Your task to perform on an android device: uninstall "Grab" Image 0: 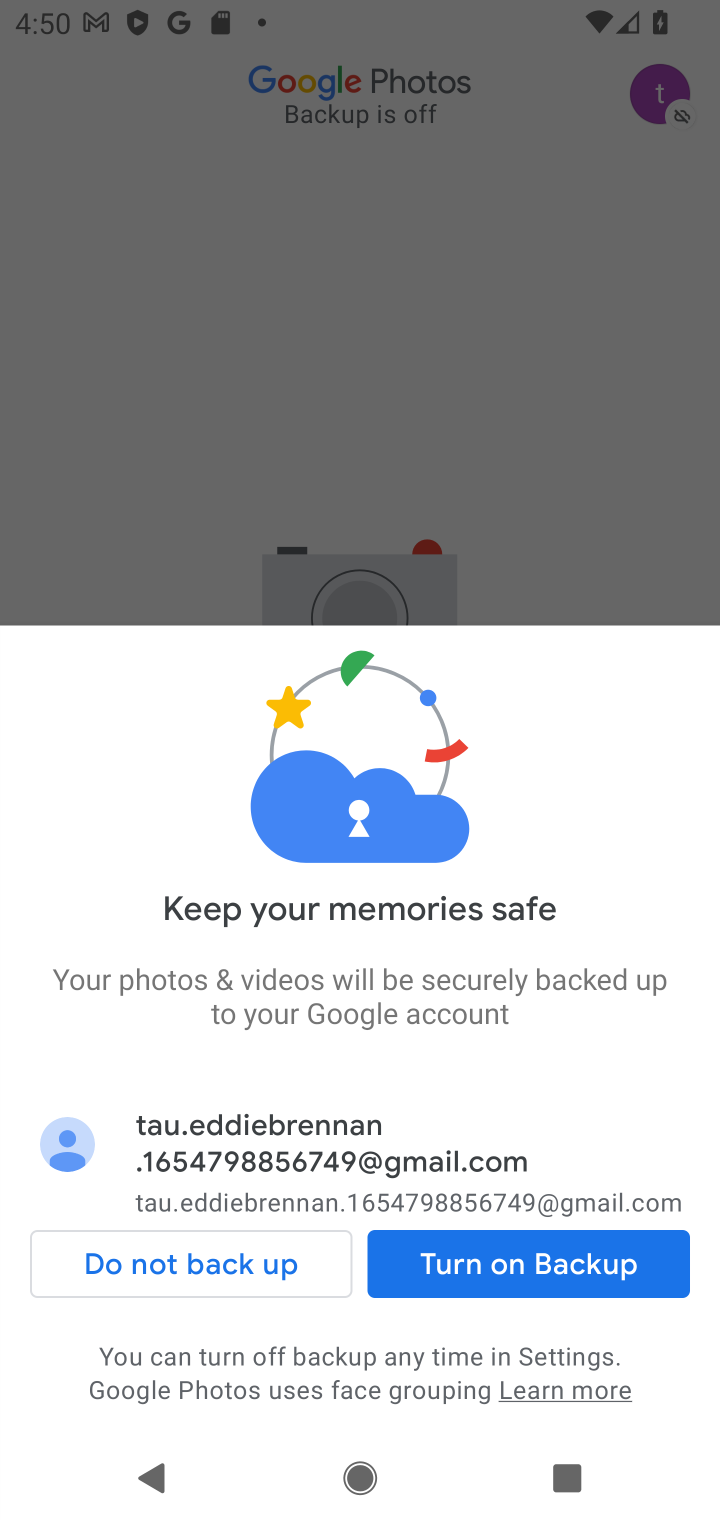
Step 0: press home button
Your task to perform on an android device: uninstall "Grab" Image 1: 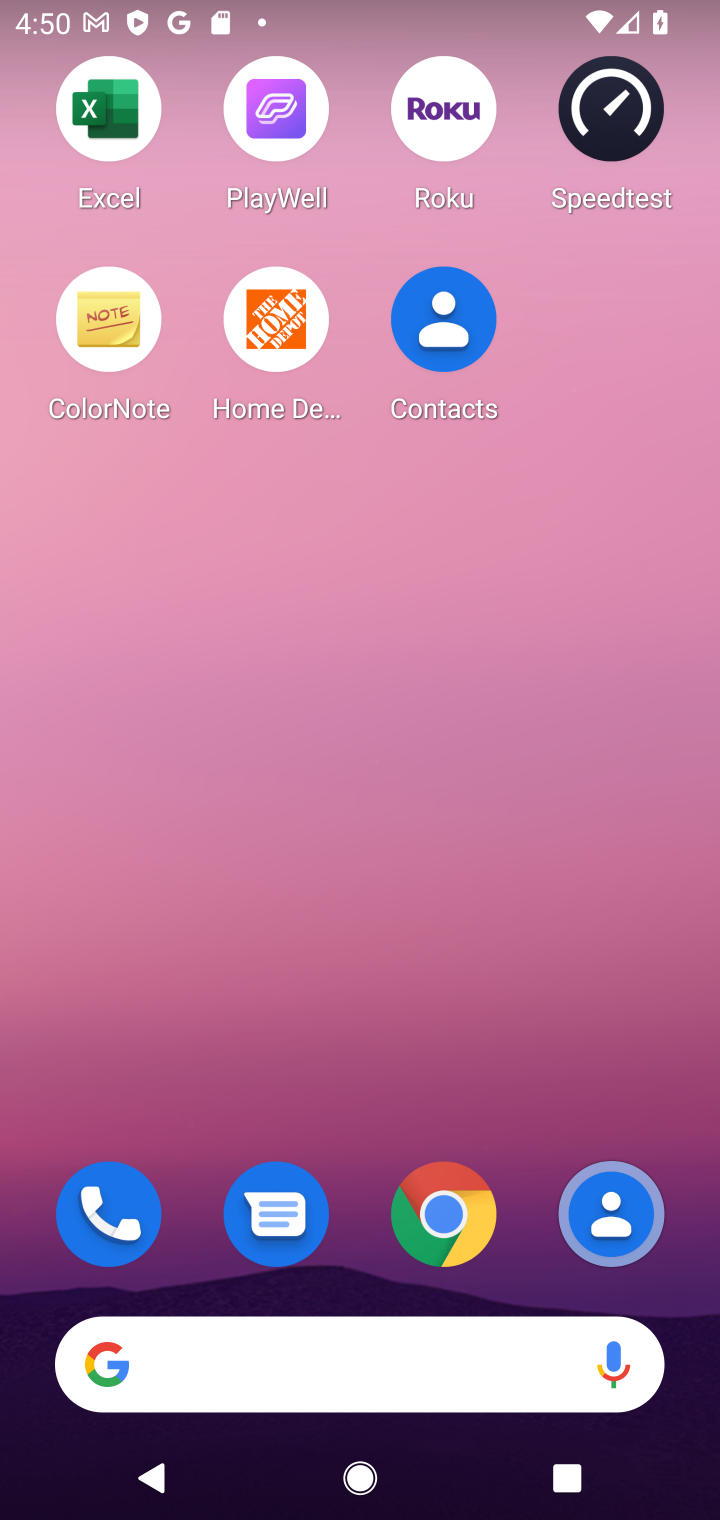
Step 1: click (420, 88)
Your task to perform on an android device: uninstall "Grab" Image 2: 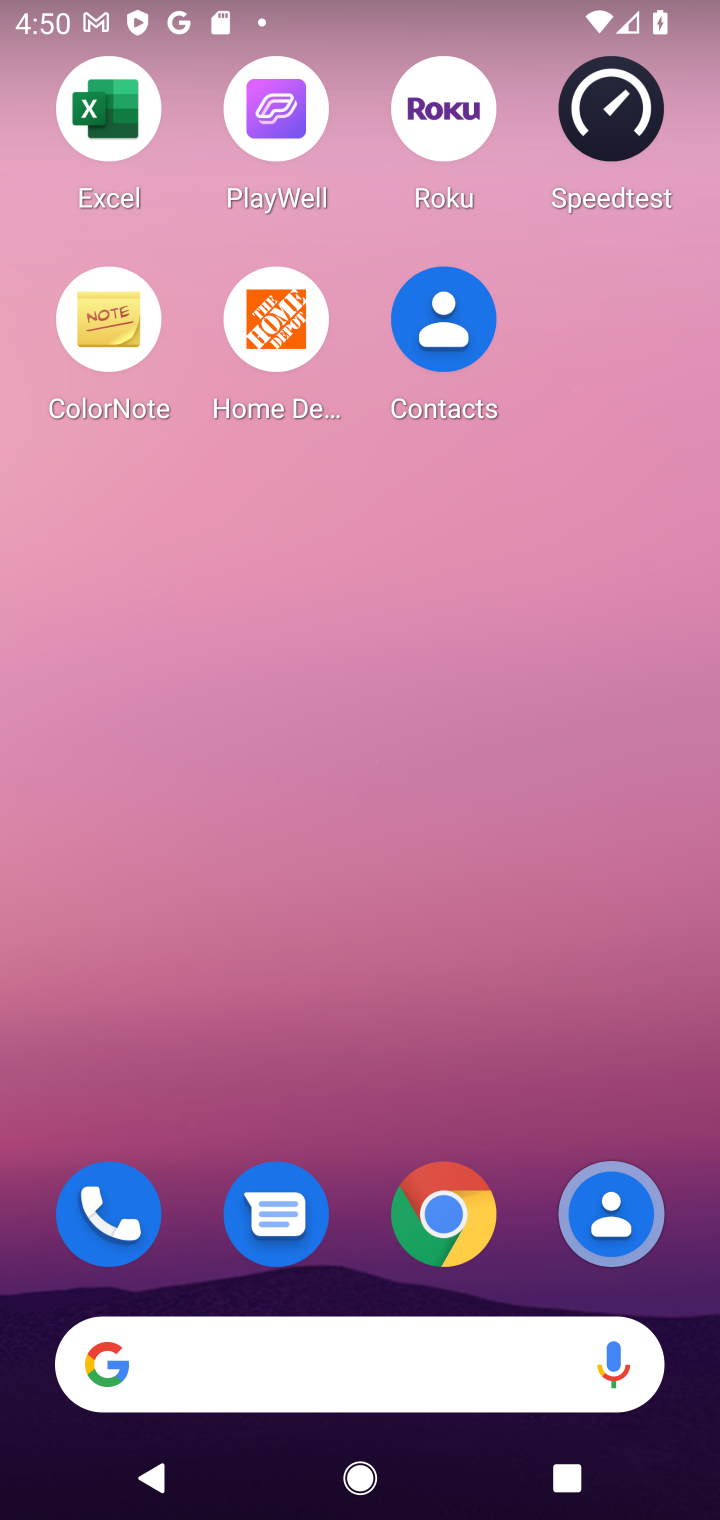
Step 2: drag from (537, 1211) to (503, 326)
Your task to perform on an android device: uninstall "Grab" Image 3: 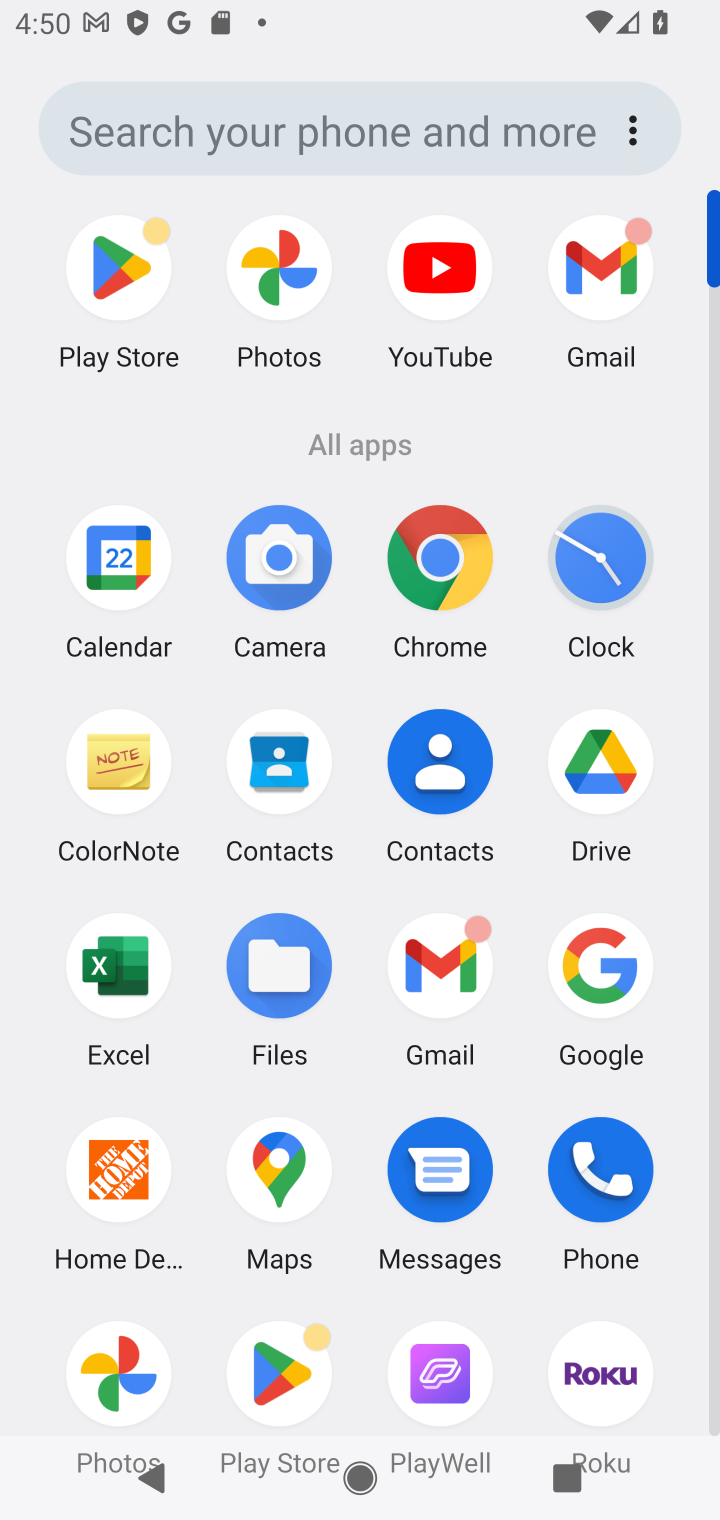
Step 3: click (280, 1378)
Your task to perform on an android device: uninstall "Grab" Image 4: 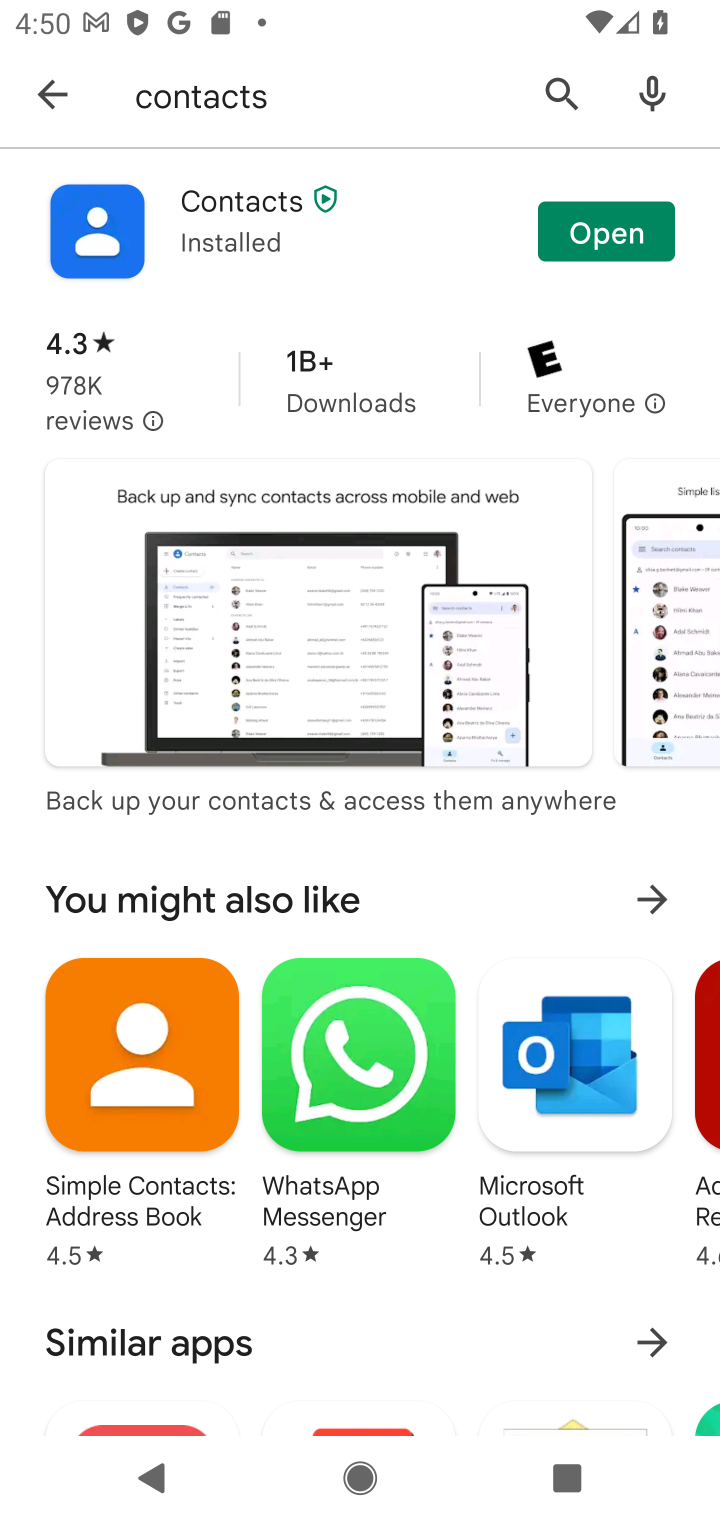
Step 4: click (540, 88)
Your task to perform on an android device: uninstall "Grab" Image 5: 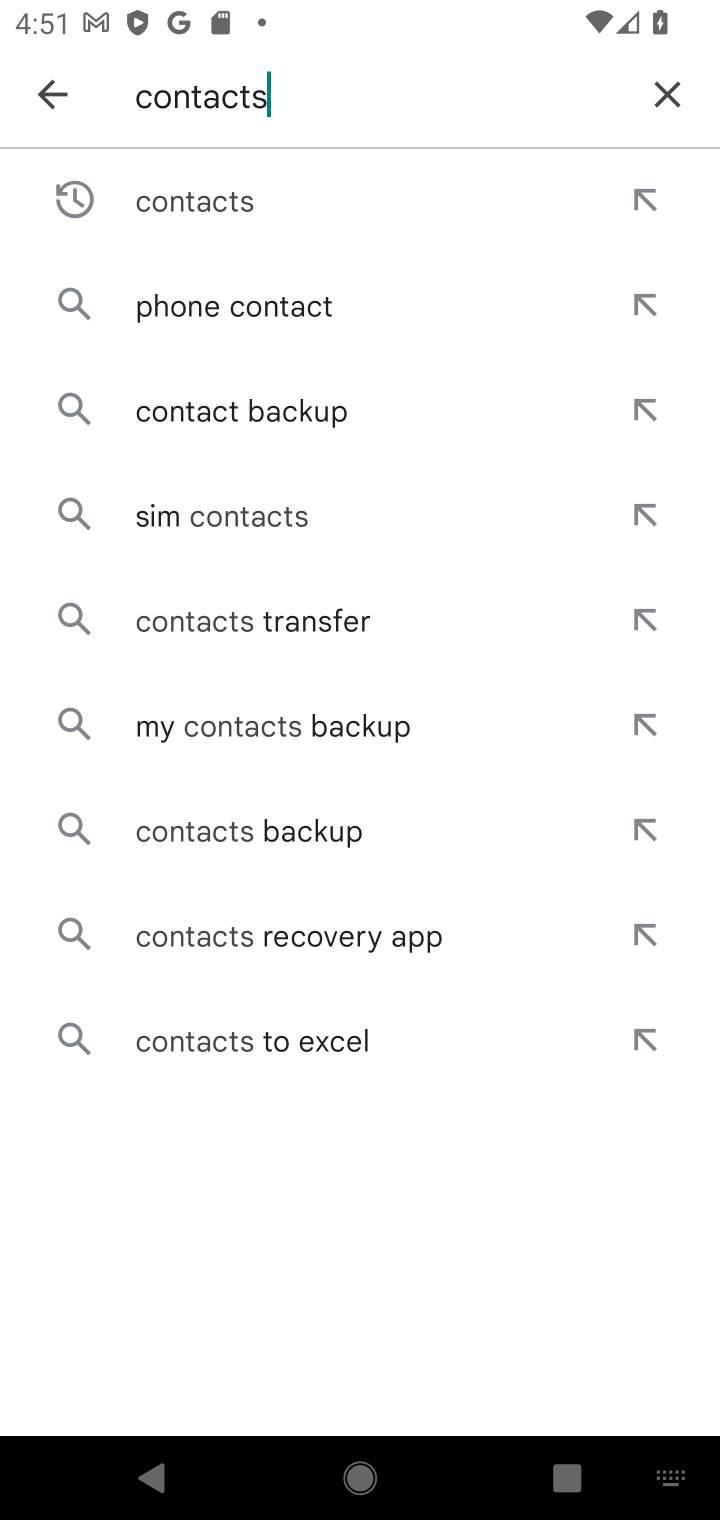
Step 5: click (662, 96)
Your task to perform on an android device: uninstall "Grab" Image 6: 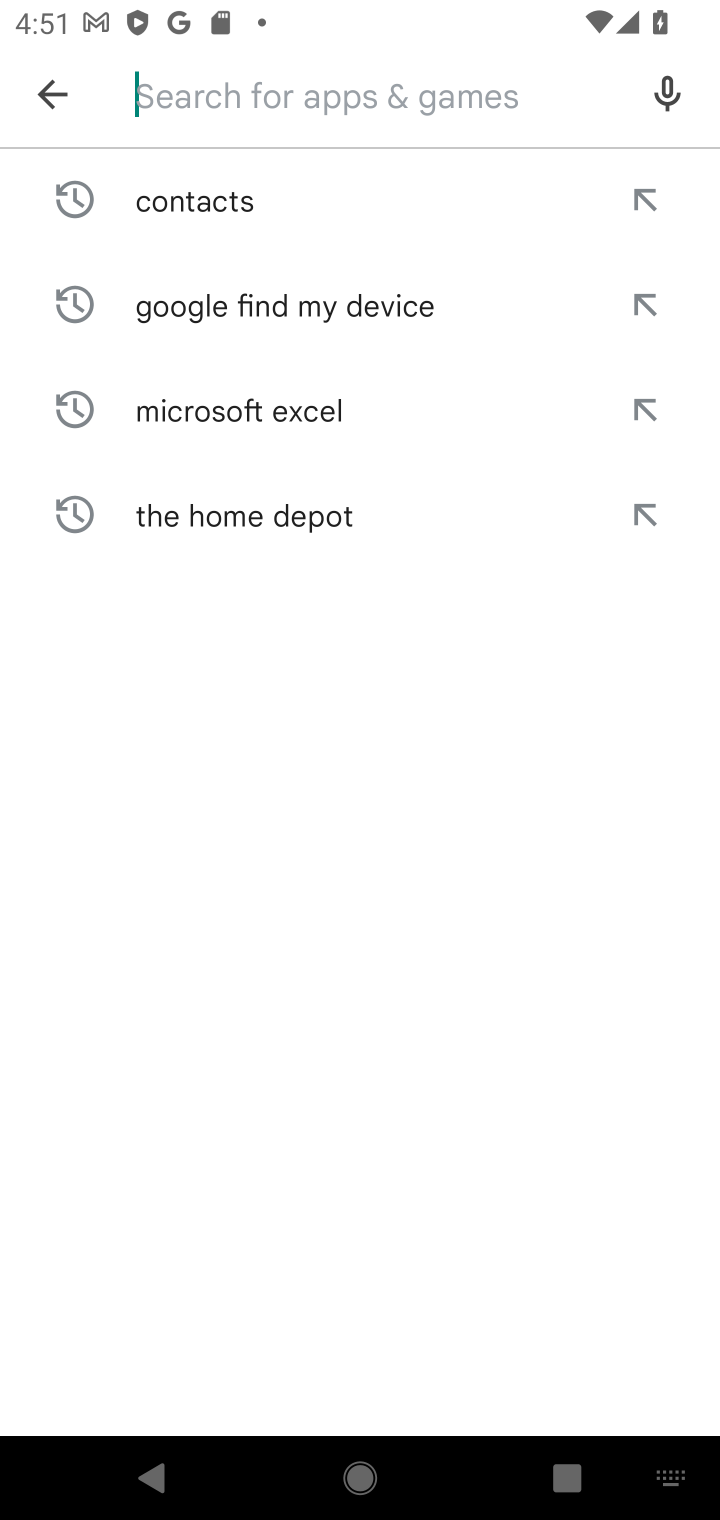
Step 6: type "grab"
Your task to perform on an android device: uninstall "Grab" Image 7: 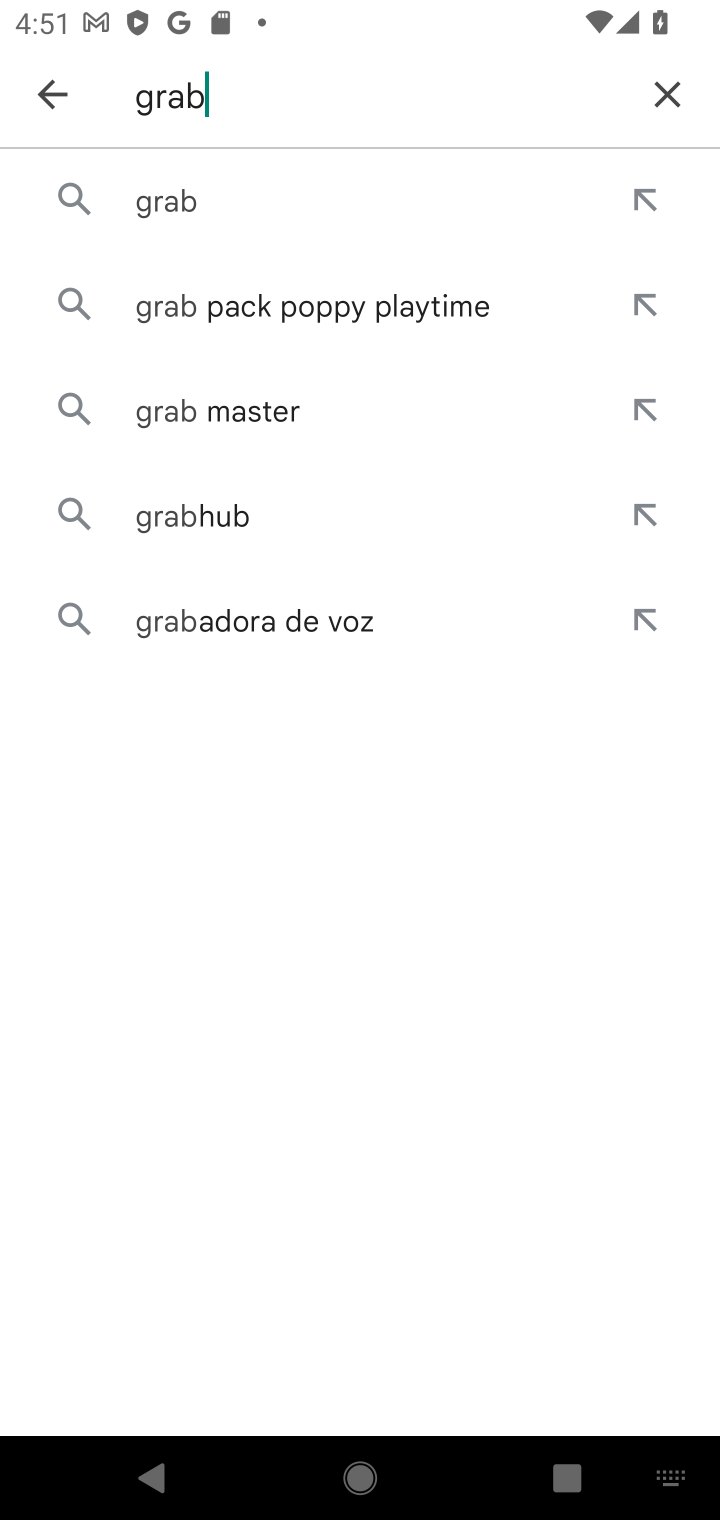
Step 7: click (167, 192)
Your task to perform on an android device: uninstall "Grab" Image 8: 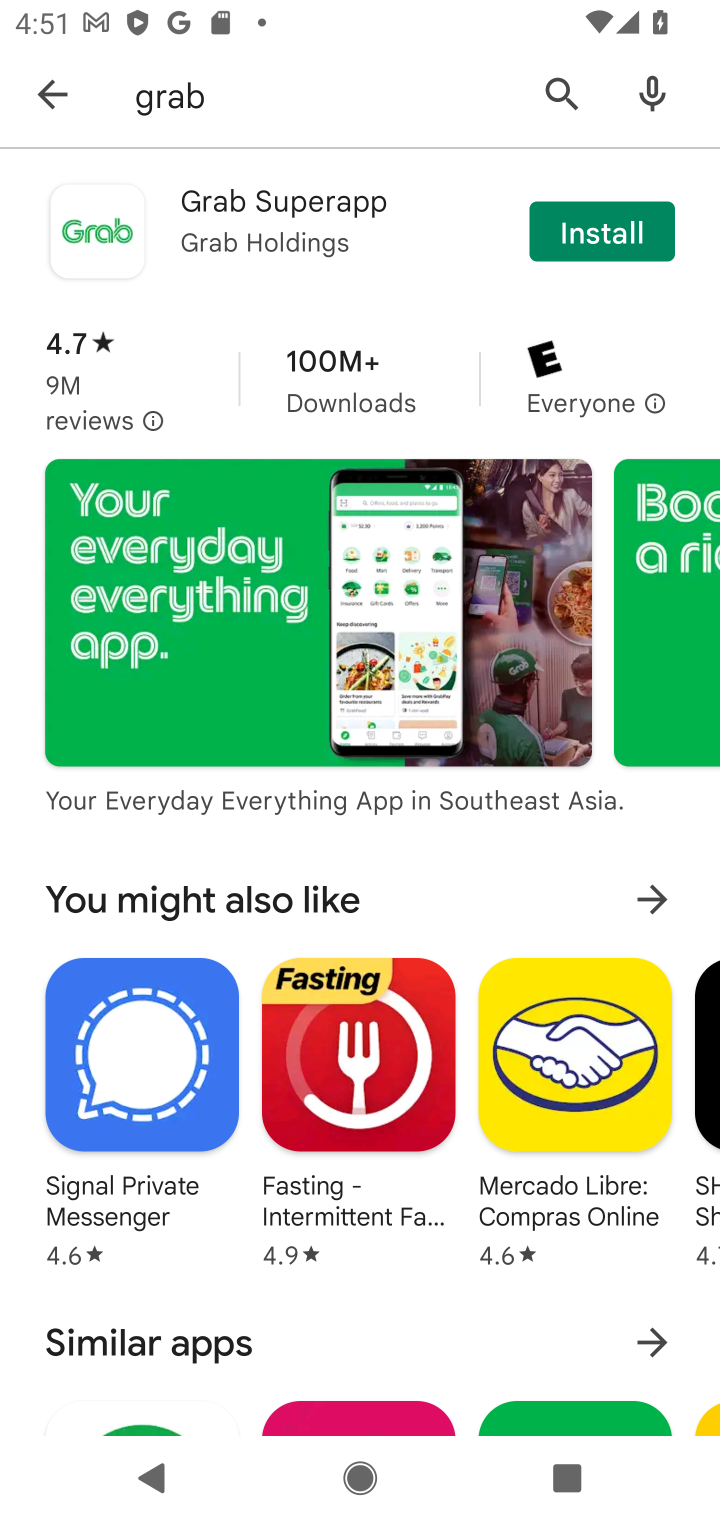
Step 8: task complete